Your task to perform on an android device: install app "Microsoft Authenticator" Image 0: 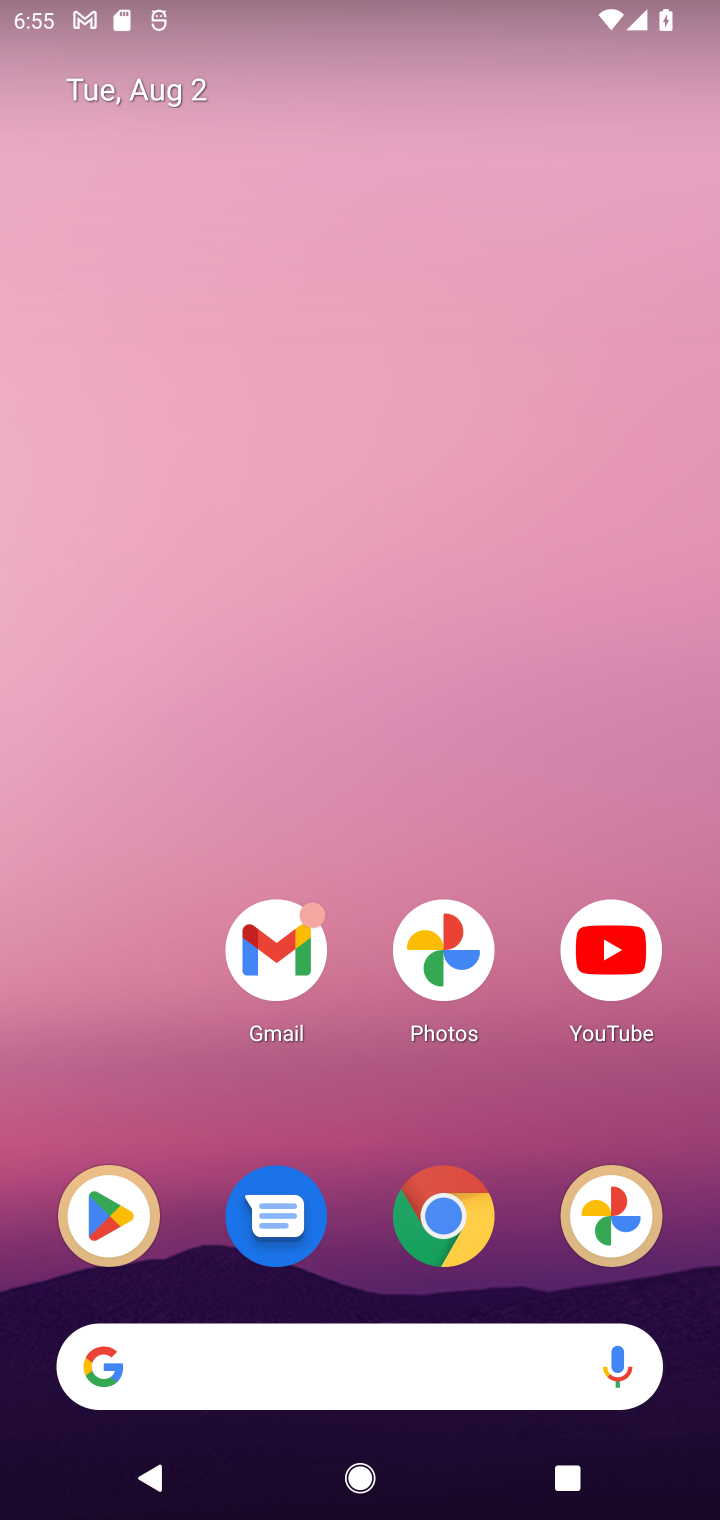
Step 0: press home button
Your task to perform on an android device: install app "Microsoft Authenticator" Image 1: 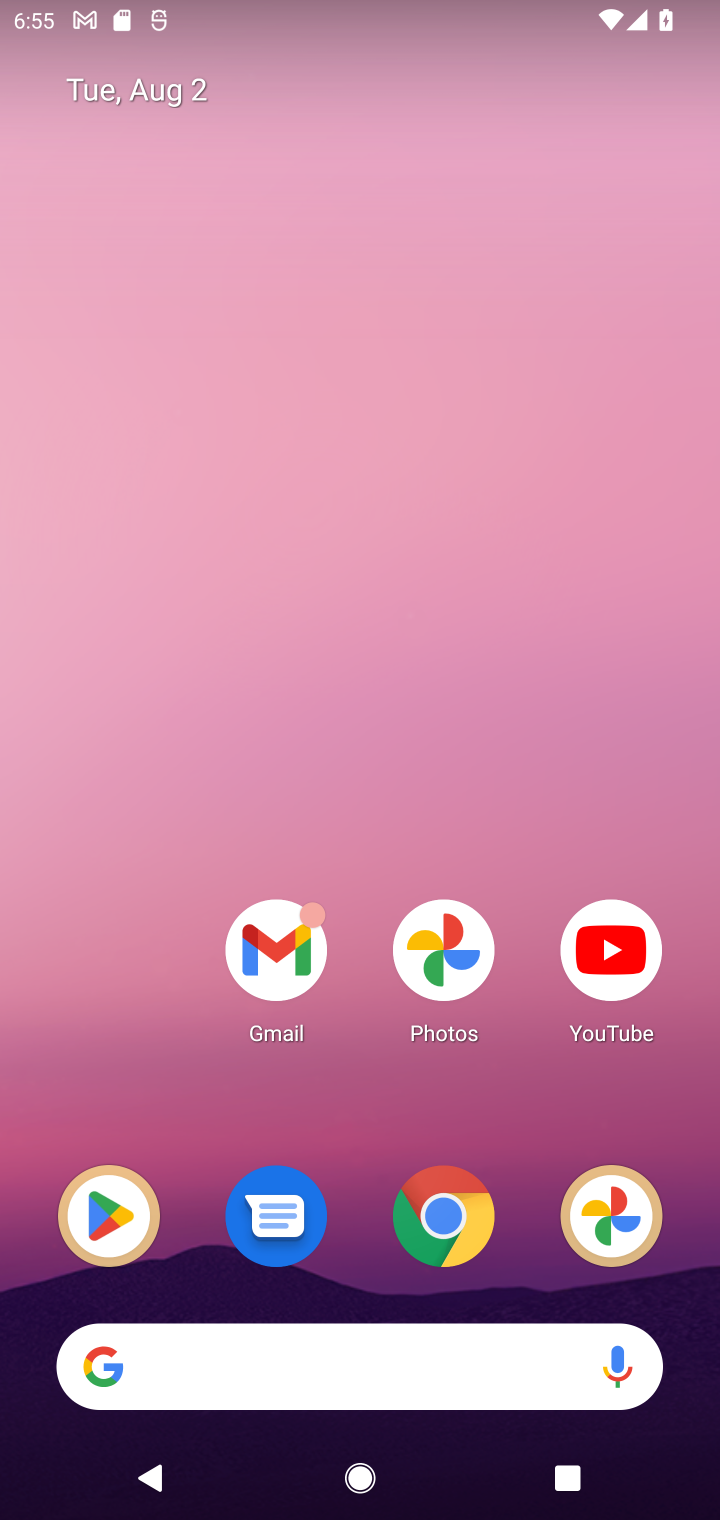
Step 1: click (103, 1205)
Your task to perform on an android device: install app "Microsoft Authenticator" Image 2: 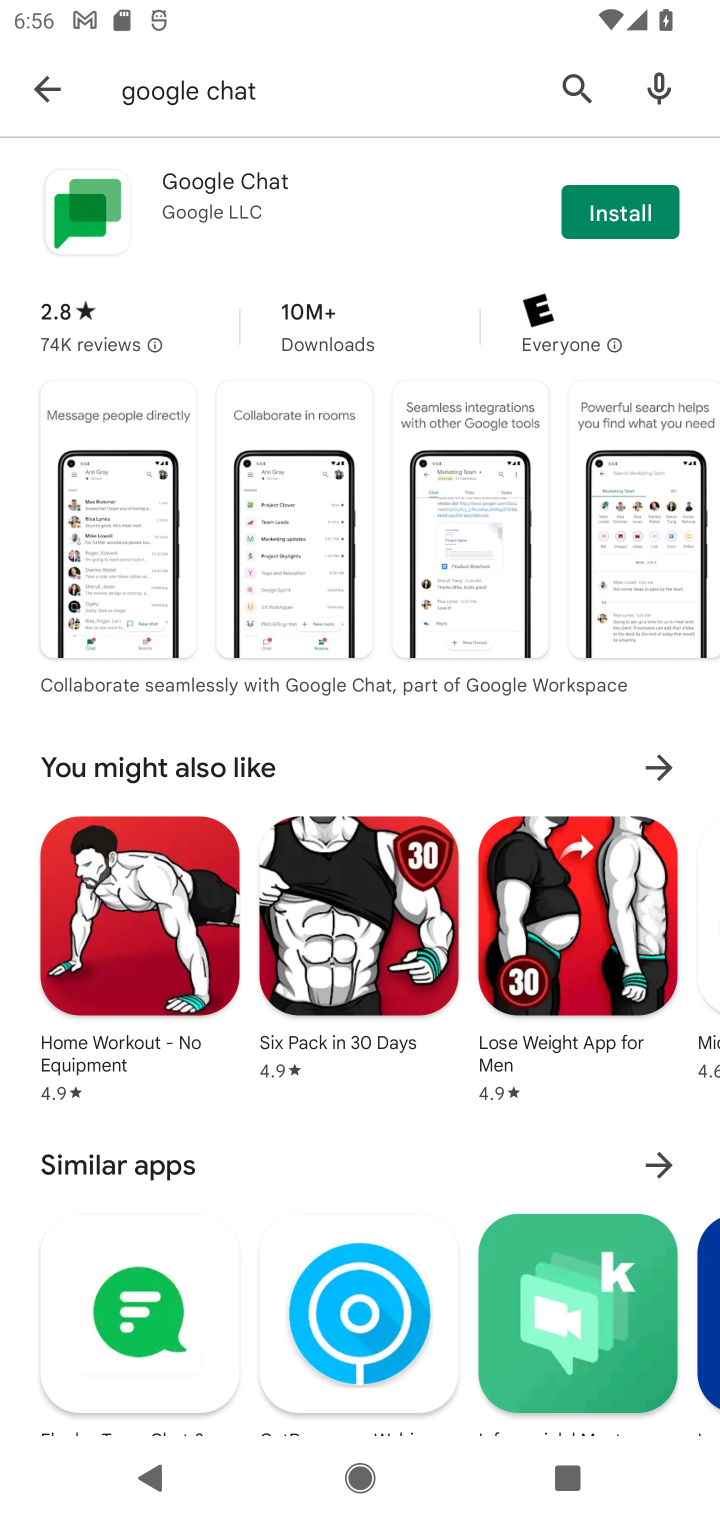
Step 2: click (566, 81)
Your task to perform on an android device: install app "Microsoft Authenticator" Image 3: 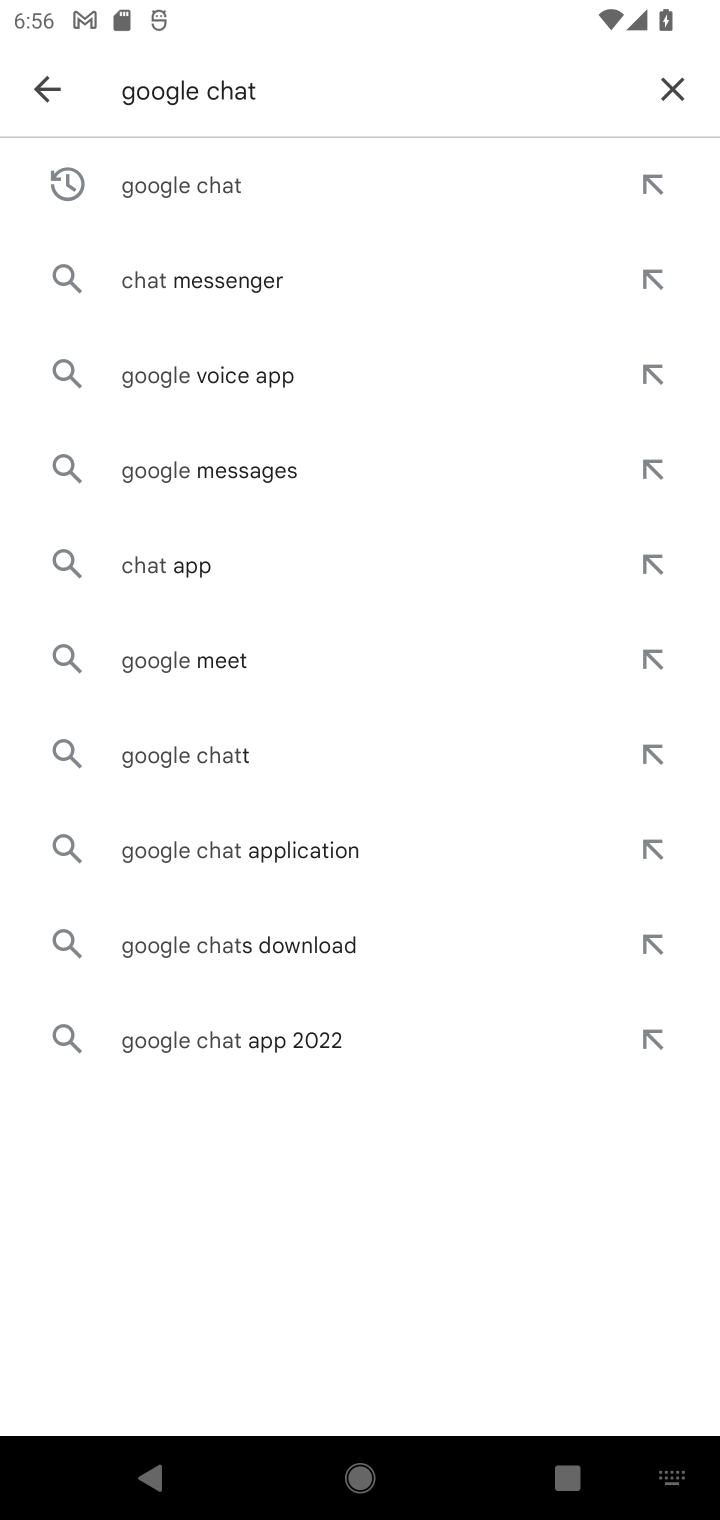
Step 3: click (671, 78)
Your task to perform on an android device: install app "Microsoft Authenticator" Image 4: 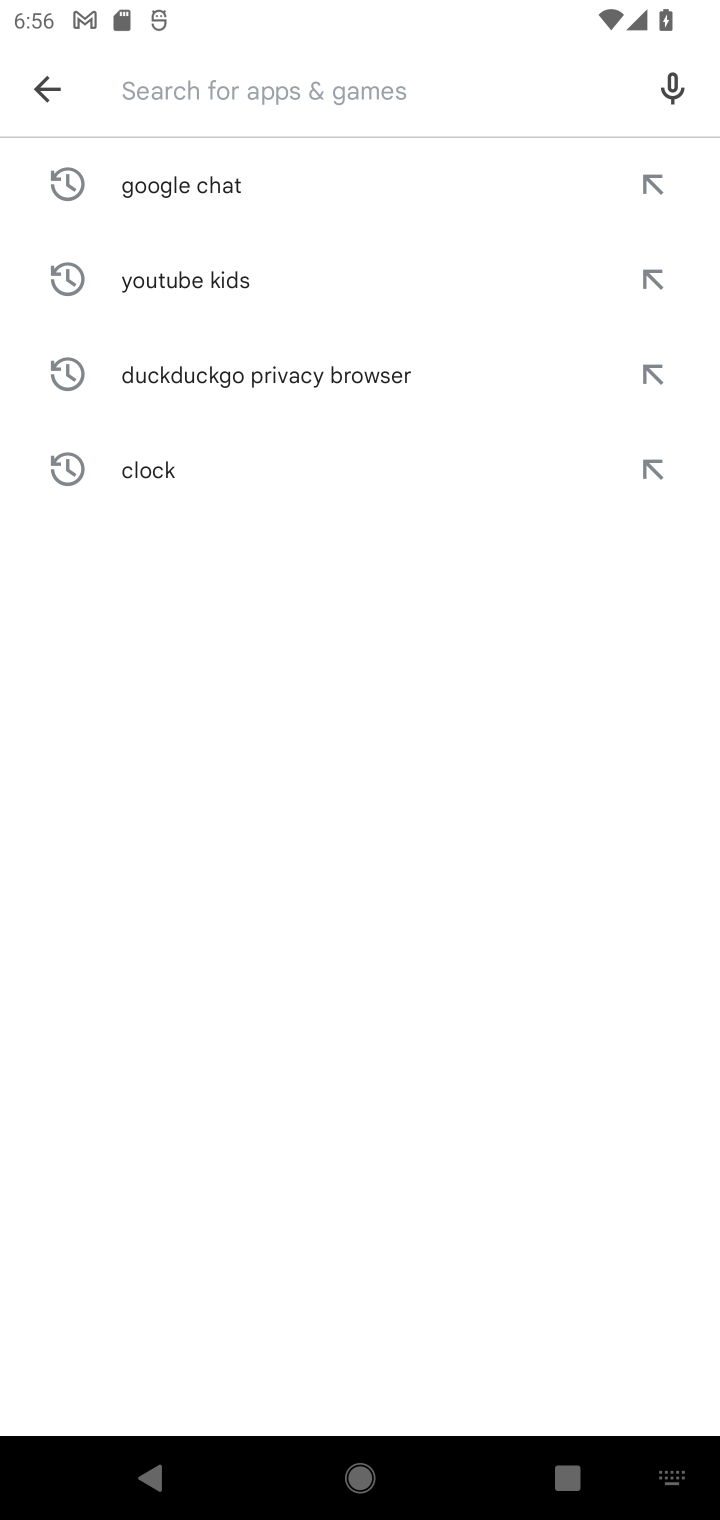
Step 4: type "Microsoft Authenticator"
Your task to perform on an android device: install app "Microsoft Authenticator" Image 5: 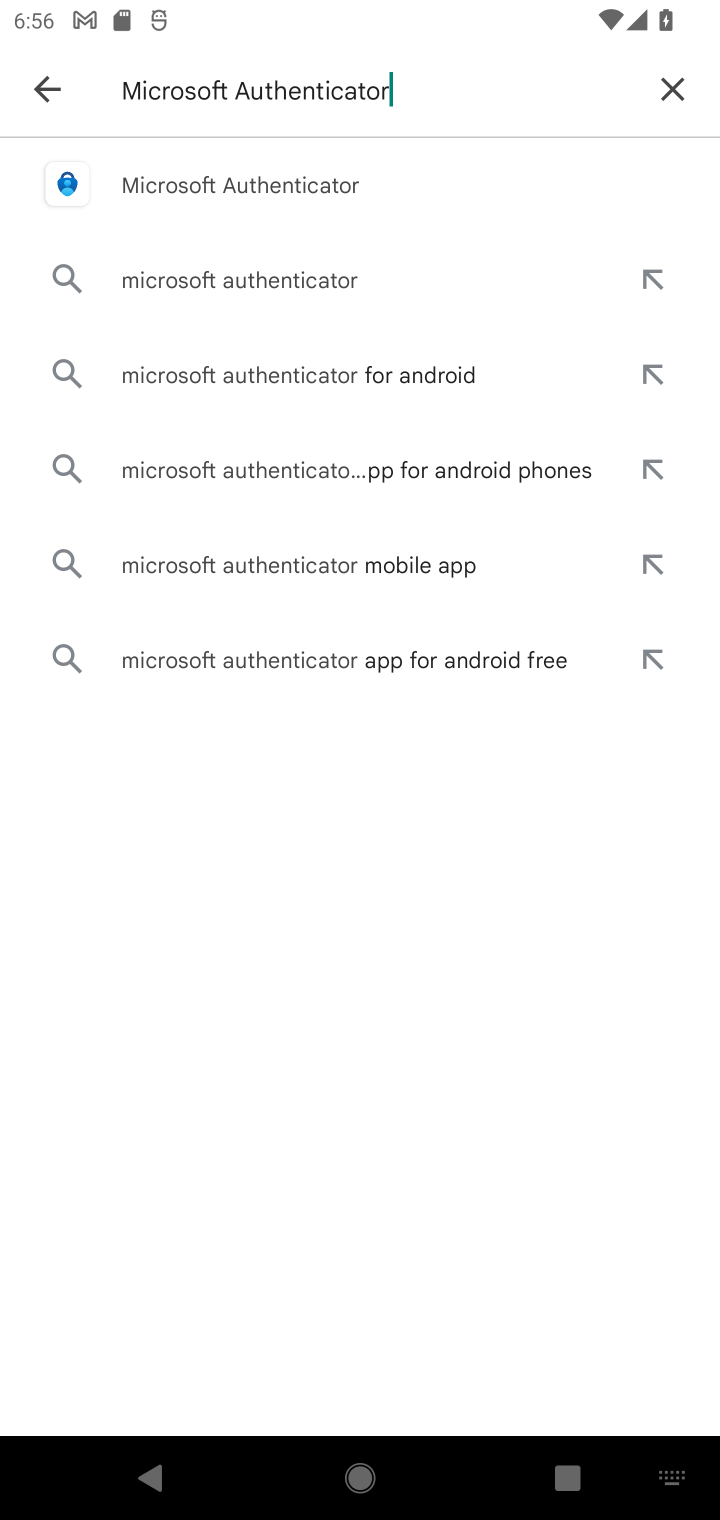
Step 5: click (327, 175)
Your task to perform on an android device: install app "Microsoft Authenticator" Image 6: 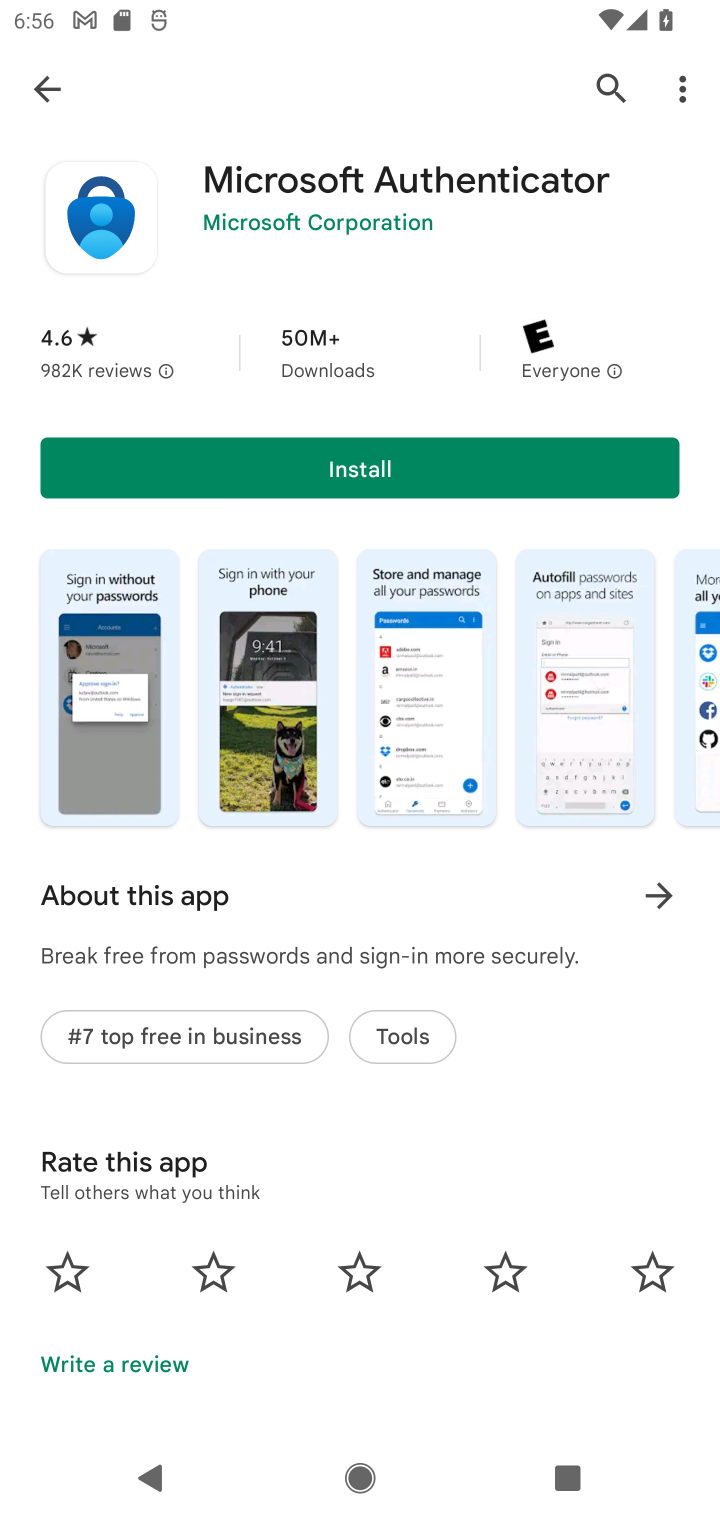
Step 6: click (391, 456)
Your task to perform on an android device: install app "Microsoft Authenticator" Image 7: 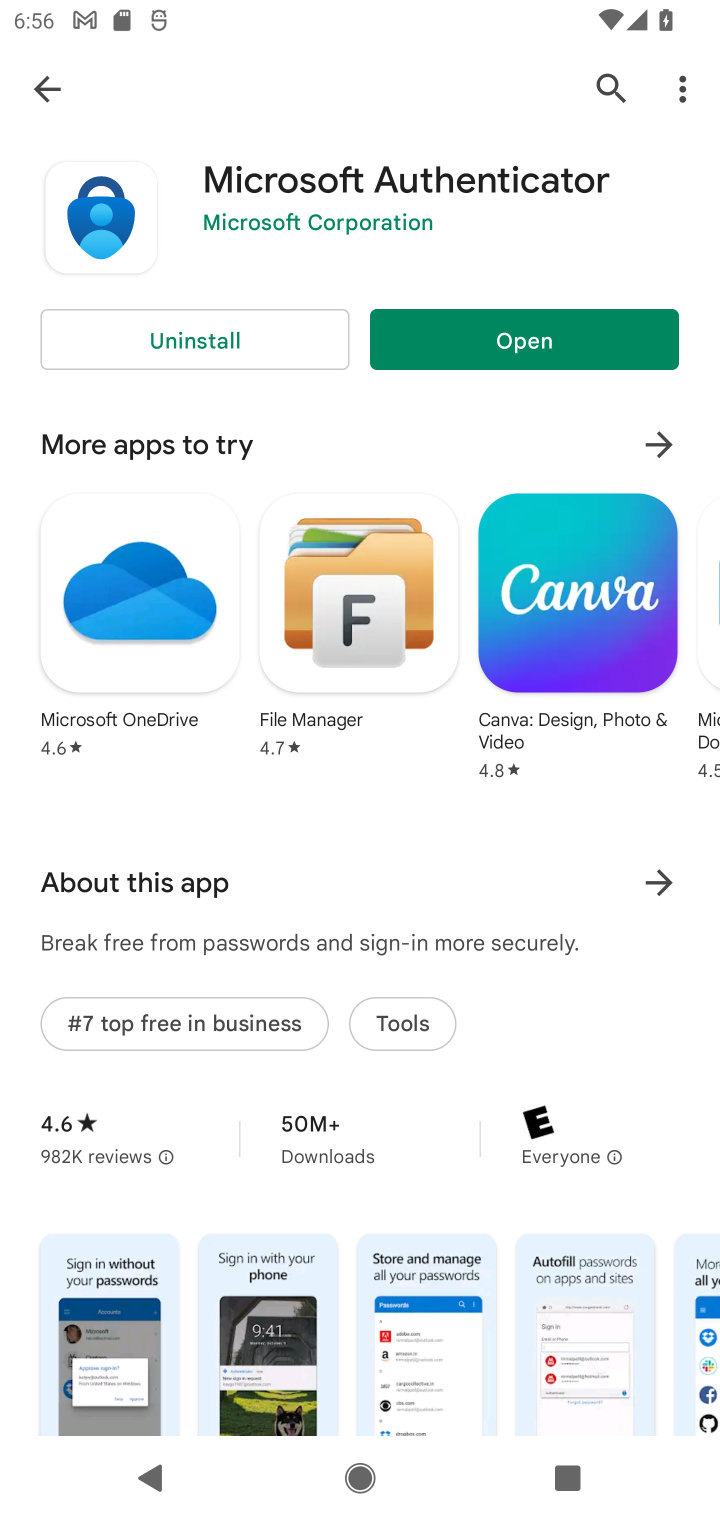
Step 7: task complete